Your task to perform on an android device: turn on translation in the chrome app Image 0: 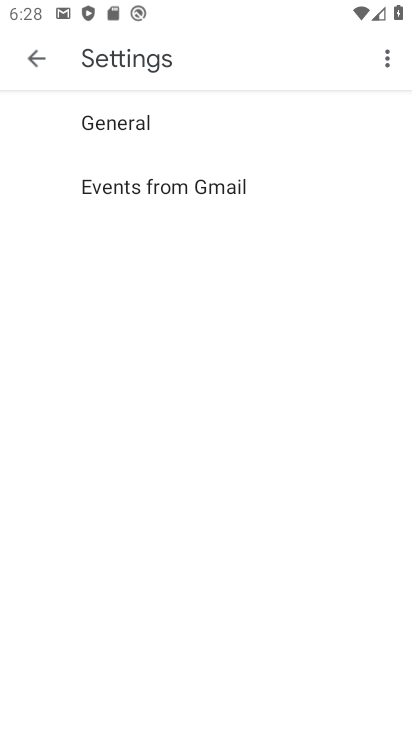
Step 0: press home button
Your task to perform on an android device: turn on translation in the chrome app Image 1: 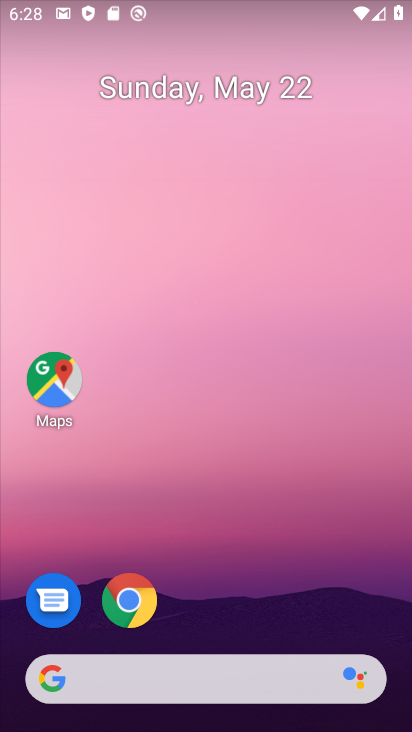
Step 1: drag from (375, 617) to (328, 397)
Your task to perform on an android device: turn on translation in the chrome app Image 2: 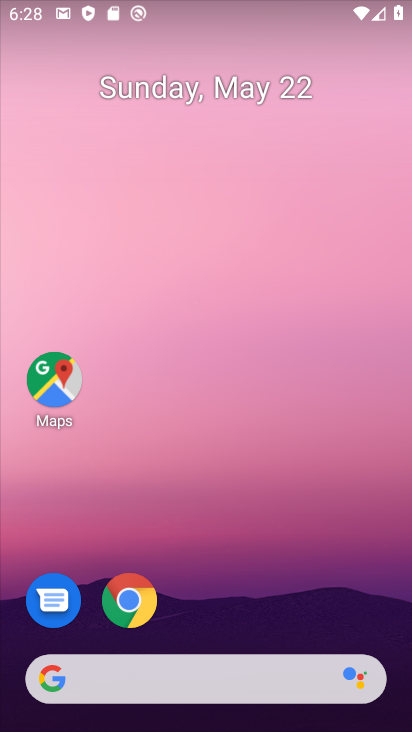
Step 2: drag from (266, 605) to (296, 206)
Your task to perform on an android device: turn on translation in the chrome app Image 3: 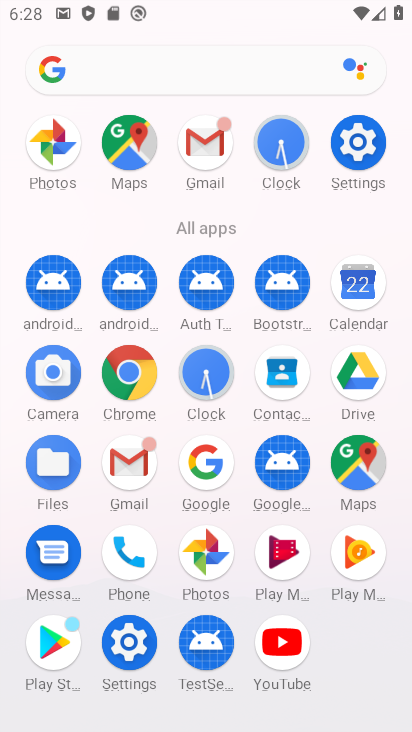
Step 3: click (121, 362)
Your task to perform on an android device: turn on translation in the chrome app Image 4: 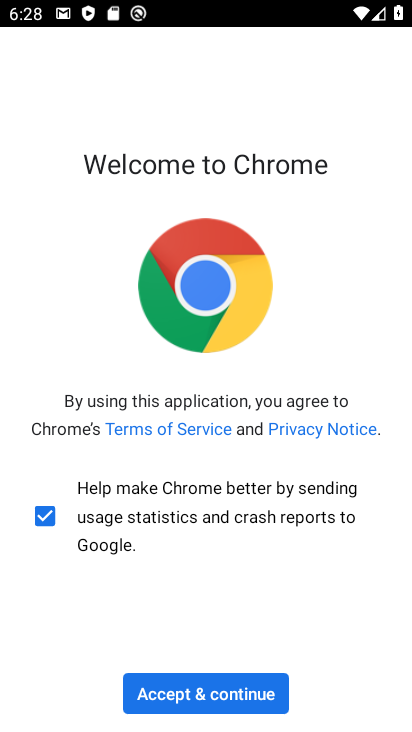
Step 4: click (175, 679)
Your task to perform on an android device: turn on translation in the chrome app Image 5: 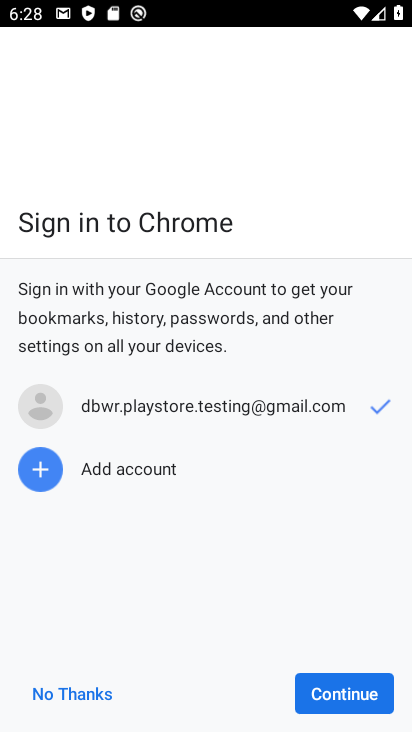
Step 5: click (347, 678)
Your task to perform on an android device: turn on translation in the chrome app Image 6: 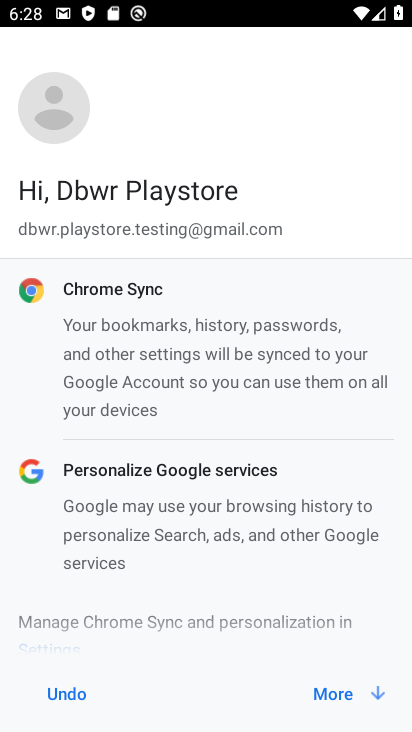
Step 6: click (342, 688)
Your task to perform on an android device: turn on translation in the chrome app Image 7: 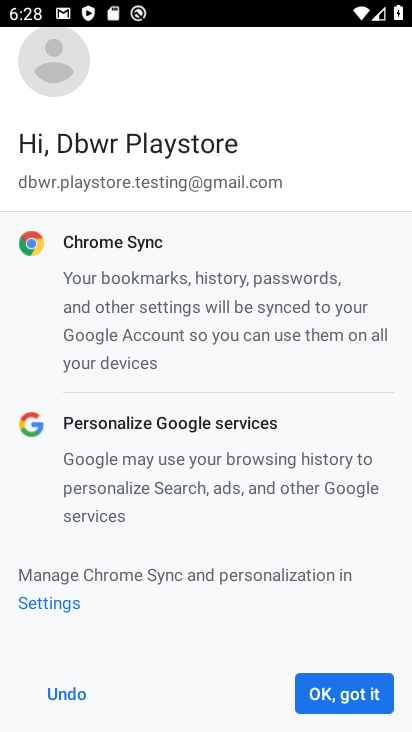
Step 7: click (342, 688)
Your task to perform on an android device: turn on translation in the chrome app Image 8: 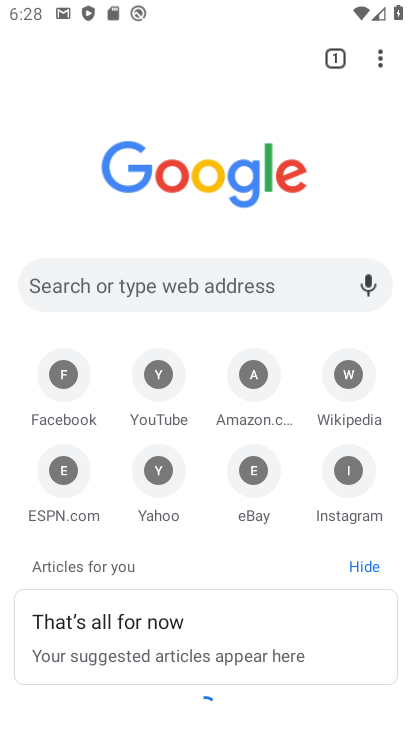
Step 8: click (380, 50)
Your task to perform on an android device: turn on translation in the chrome app Image 9: 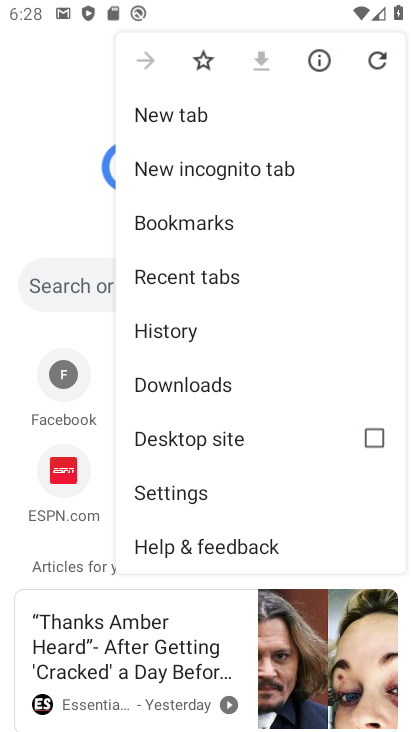
Step 9: click (224, 493)
Your task to perform on an android device: turn on translation in the chrome app Image 10: 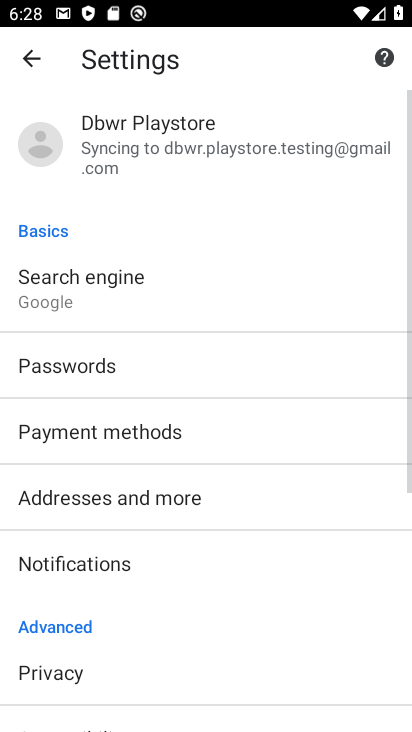
Step 10: drag from (181, 631) to (244, 212)
Your task to perform on an android device: turn on translation in the chrome app Image 11: 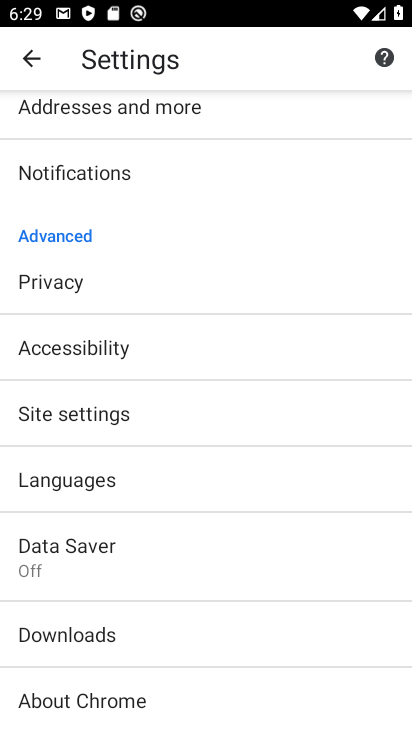
Step 11: click (115, 479)
Your task to perform on an android device: turn on translation in the chrome app Image 12: 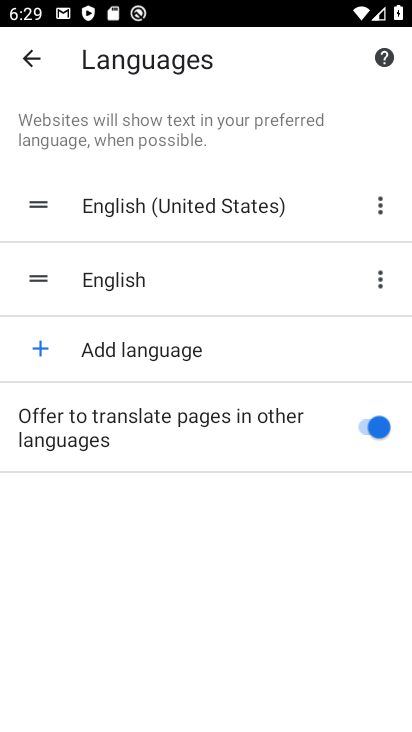
Step 12: task complete